Your task to perform on an android device: Open calendar and show me the second week of next month Image 0: 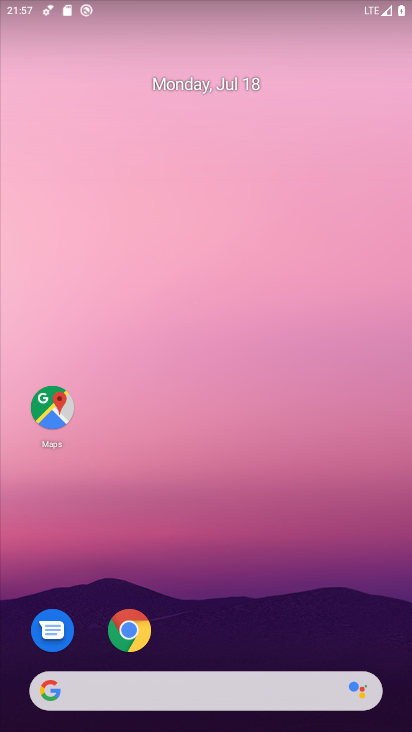
Step 0: drag from (218, 612) to (167, 125)
Your task to perform on an android device: Open calendar and show me the second week of next month Image 1: 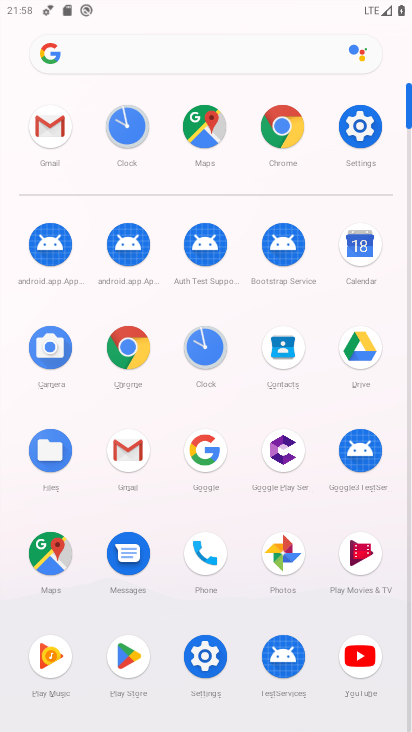
Step 1: click (368, 246)
Your task to perform on an android device: Open calendar and show me the second week of next month Image 2: 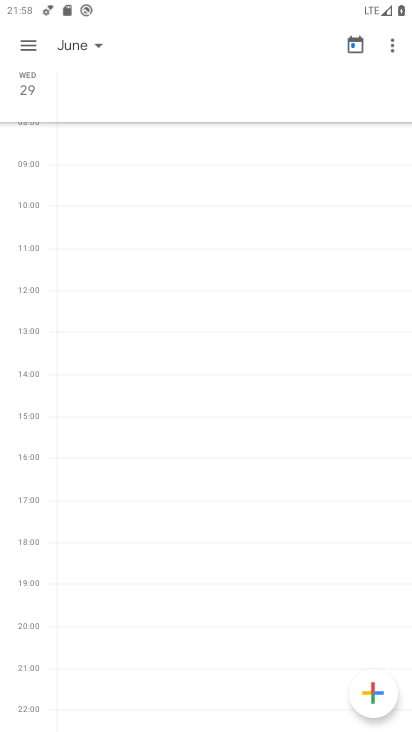
Step 2: click (35, 42)
Your task to perform on an android device: Open calendar and show me the second week of next month Image 3: 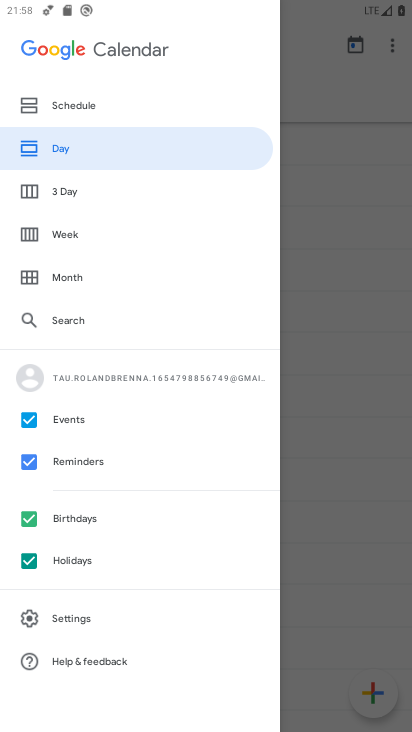
Step 3: click (104, 270)
Your task to perform on an android device: Open calendar and show me the second week of next month Image 4: 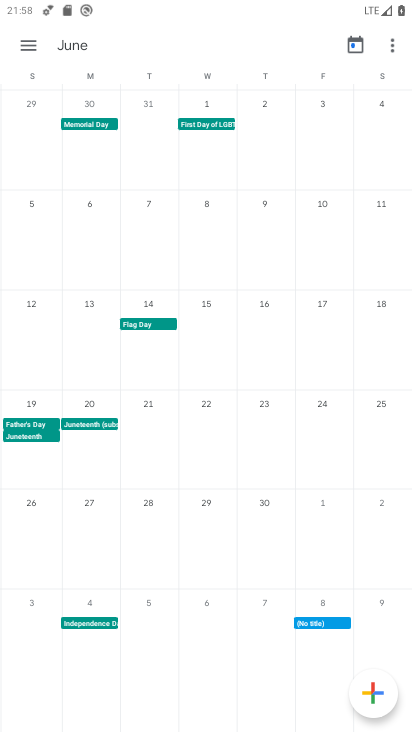
Step 4: task complete